Your task to perform on an android device: toggle notifications settings in the gmail app Image 0: 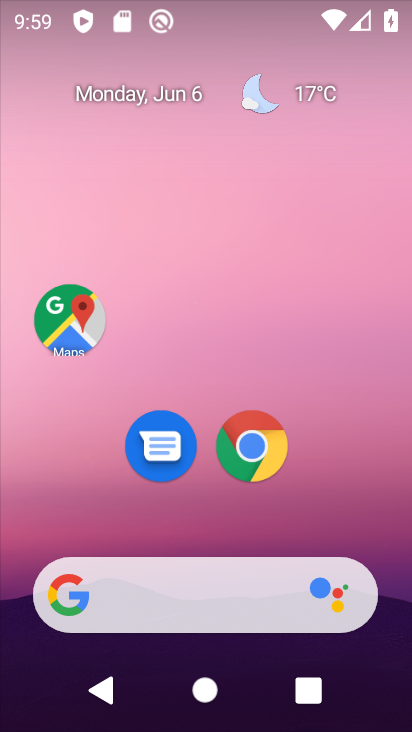
Step 0: drag from (193, 514) to (223, 23)
Your task to perform on an android device: toggle notifications settings in the gmail app Image 1: 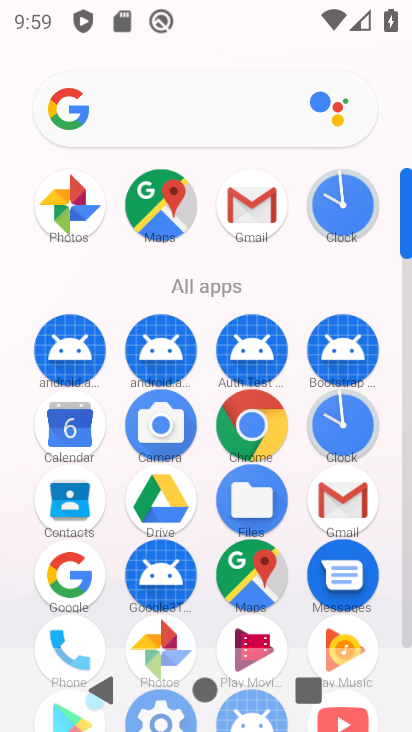
Step 1: click (258, 222)
Your task to perform on an android device: toggle notifications settings in the gmail app Image 2: 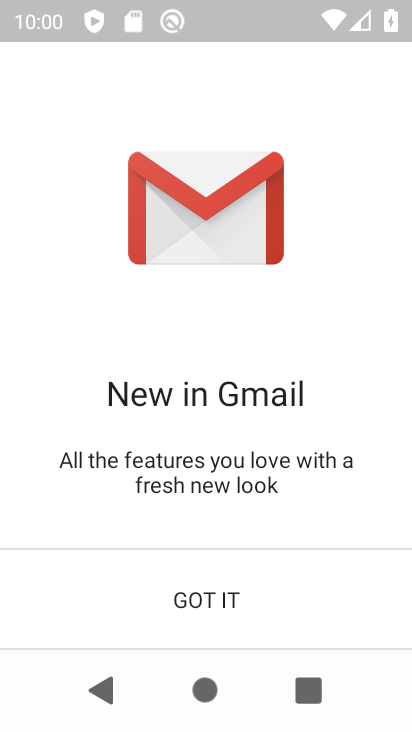
Step 2: click (195, 588)
Your task to perform on an android device: toggle notifications settings in the gmail app Image 3: 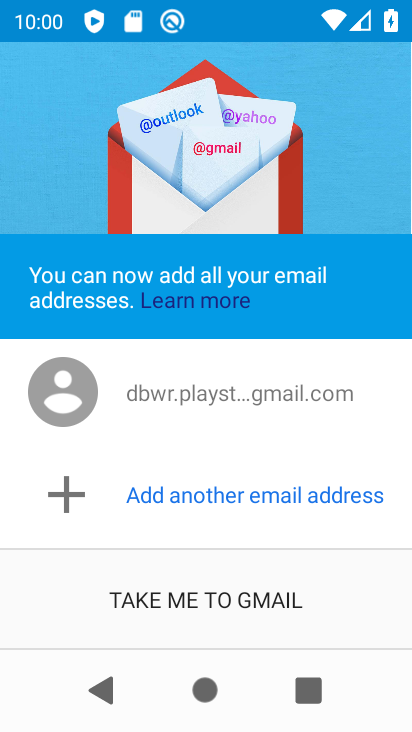
Step 3: click (195, 588)
Your task to perform on an android device: toggle notifications settings in the gmail app Image 4: 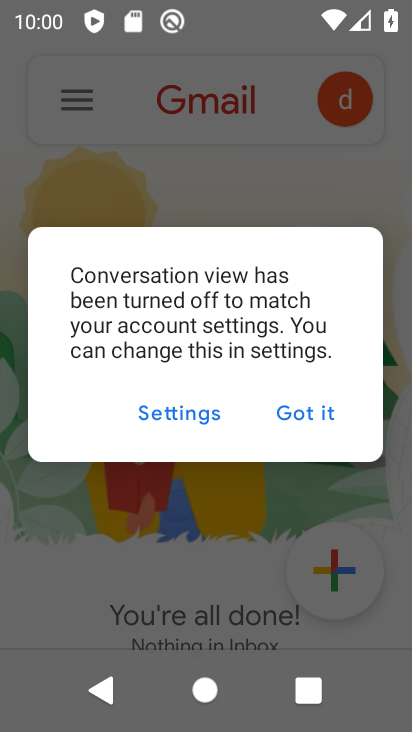
Step 4: click (314, 417)
Your task to perform on an android device: toggle notifications settings in the gmail app Image 5: 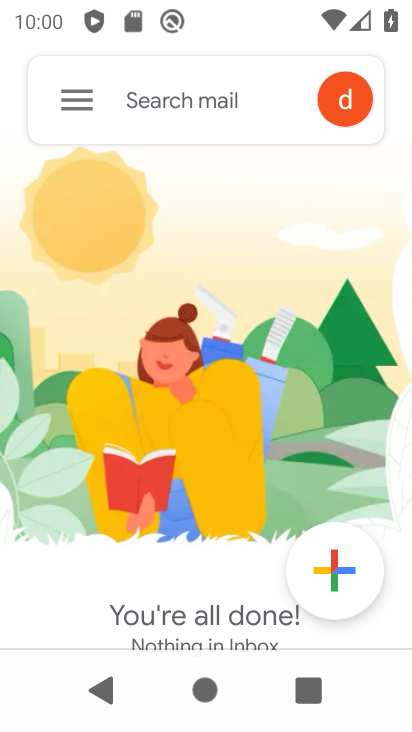
Step 5: click (96, 82)
Your task to perform on an android device: toggle notifications settings in the gmail app Image 6: 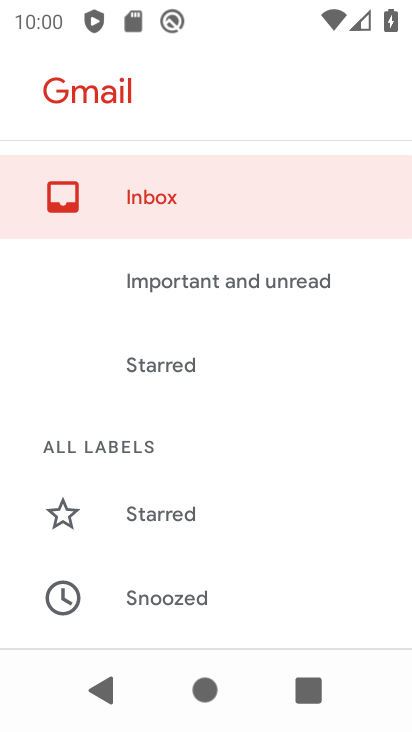
Step 6: drag from (105, 620) to (168, 126)
Your task to perform on an android device: toggle notifications settings in the gmail app Image 7: 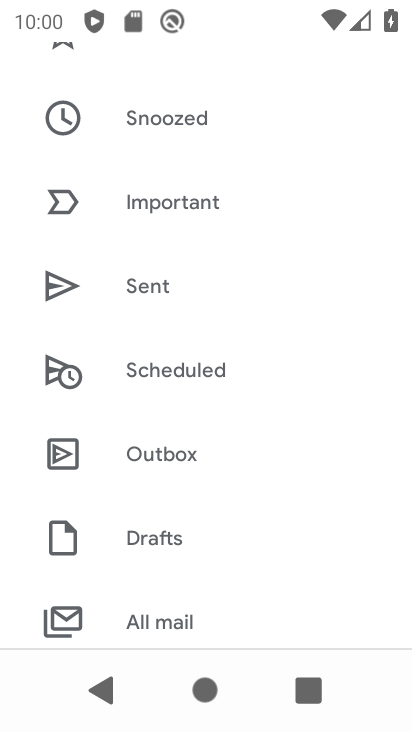
Step 7: drag from (129, 589) to (199, 4)
Your task to perform on an android device: toggle notifications settings in the gmail app Image 8: 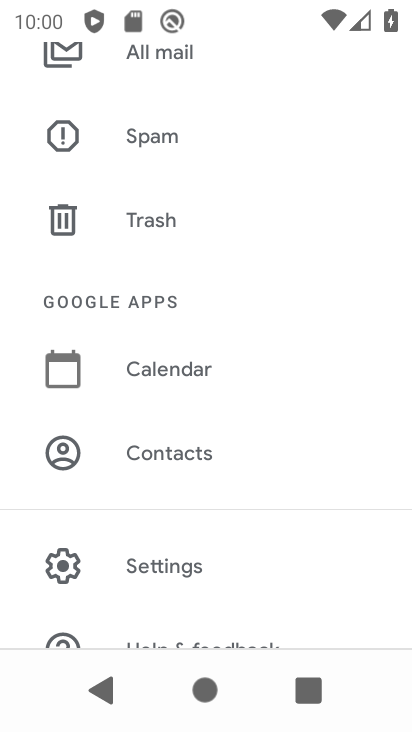
Step 8: click (142, 576)
Your task to perform on an android device: toggle notifications settings in the gmail app Image 9: 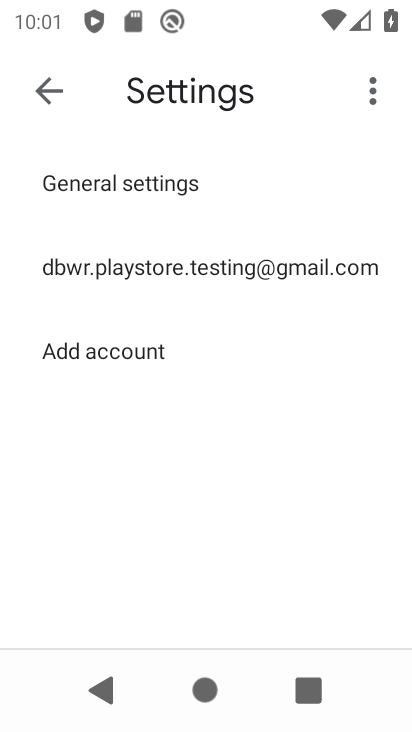
Step 9: click (184, 304)
Your task to perform on an android device: toggle notifications settings in the gmail app Image 10: 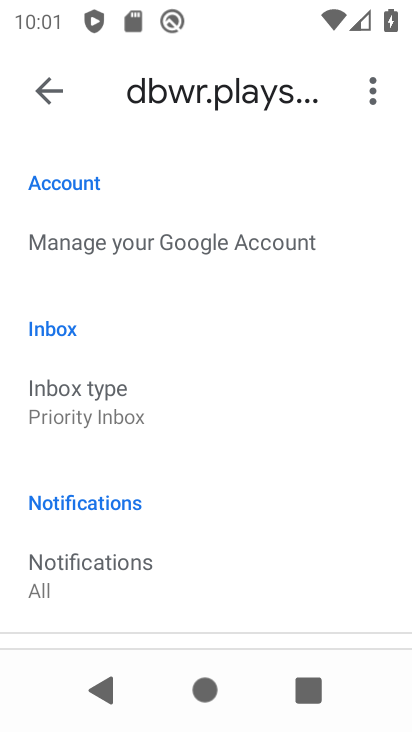
Step 10: click (85, 597)
Your task to perform on an android device: toggle notifications settings in the gmail app Image 11: 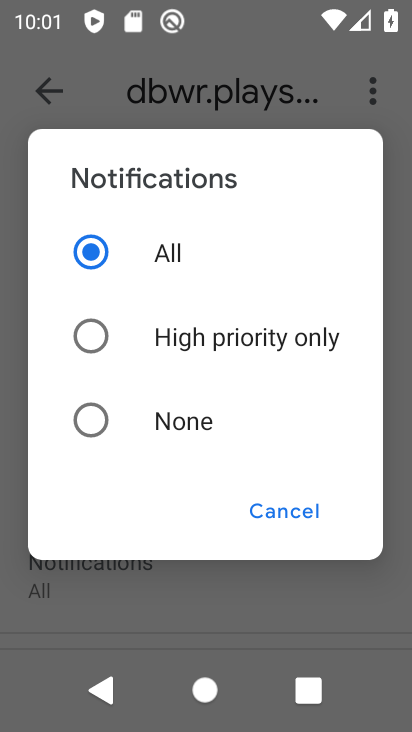
Step 11: click (117, 346)
Your task to perform on an android device: toggle notifications settings in the gmail app Image 12: 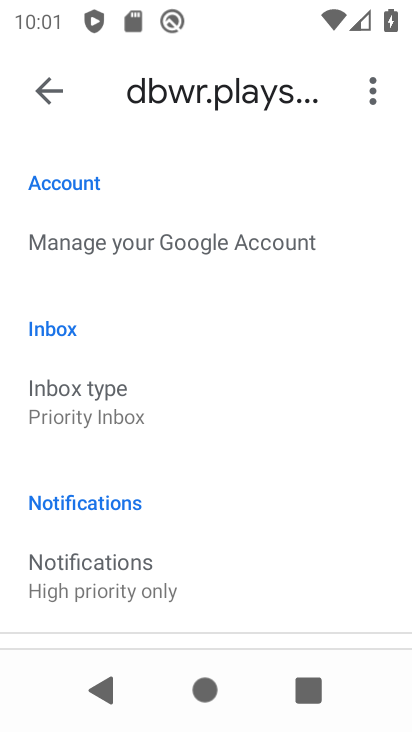
Step 12: task complete